Your task to perform on an android device: turn off airplane mode Image 0: 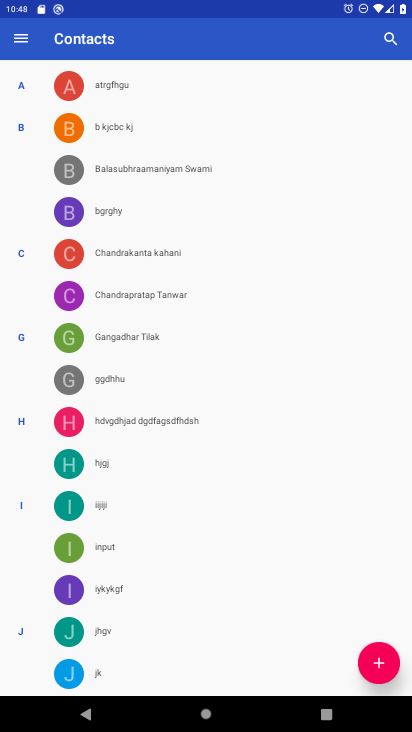
Step 0: press home button
Your task to perform on an android device: turn off airplane mode Image 1: 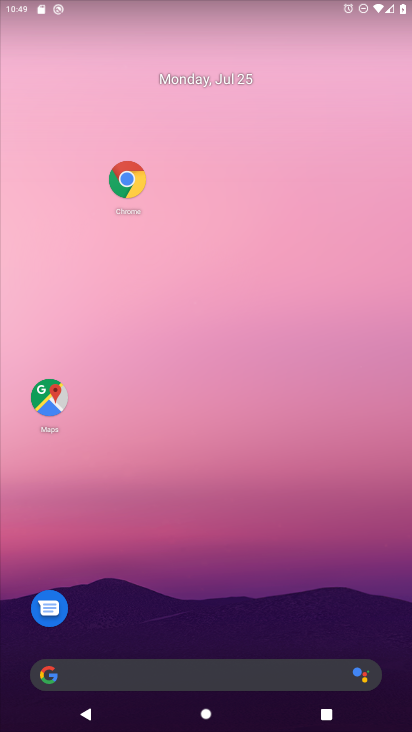
Step 1: drag from (173, 713) to (211, 13)
Your task to perform on an android device: turn off airplane mode Image 2: 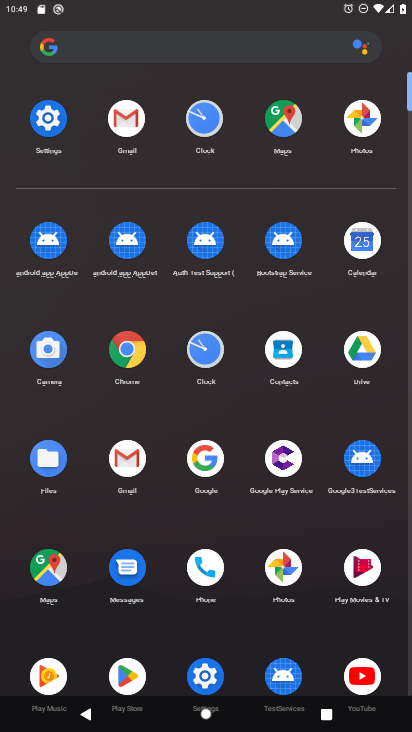
Step 2: click (39, 118)
Your task to perform on an android device: turn off airplane mode Image 3: 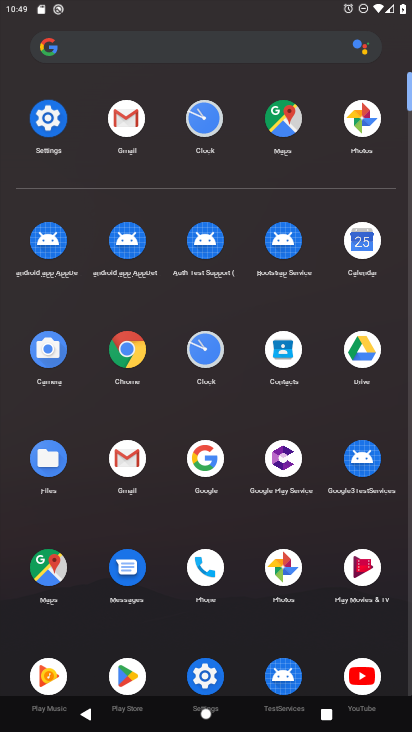
Step 3: click (39, 118)
Your task to perform on an android device: turn off airplane mode Image 4: 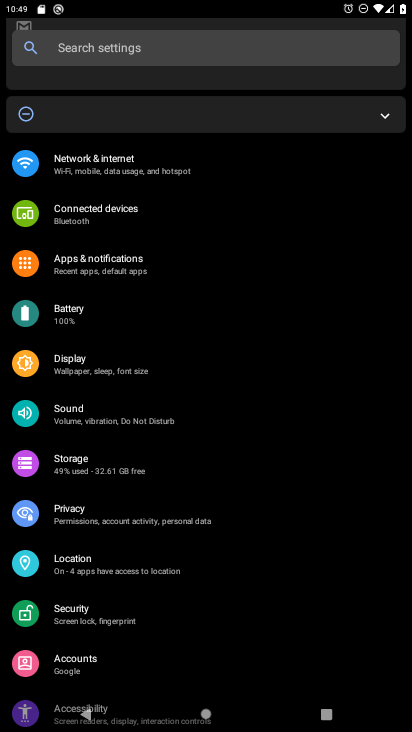
Step 4: click (196, 181)
Your task to perform on an android device: turn off airplane mode Image 5: 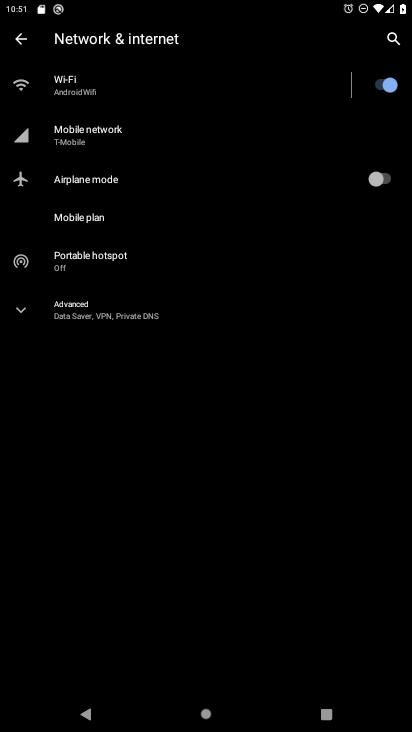
Step 5: task complete